Your task to perform on an android device: set default search engine in the chrome app Image 0: 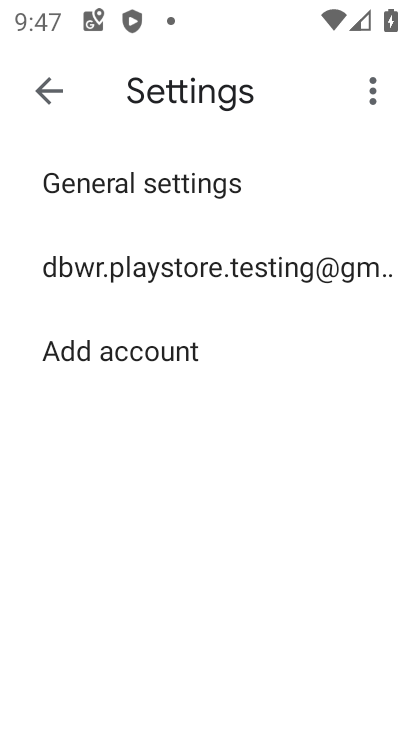
Step 0: press home button
Your task to perform on an android device: set default search engine in the chrome app Image 1: 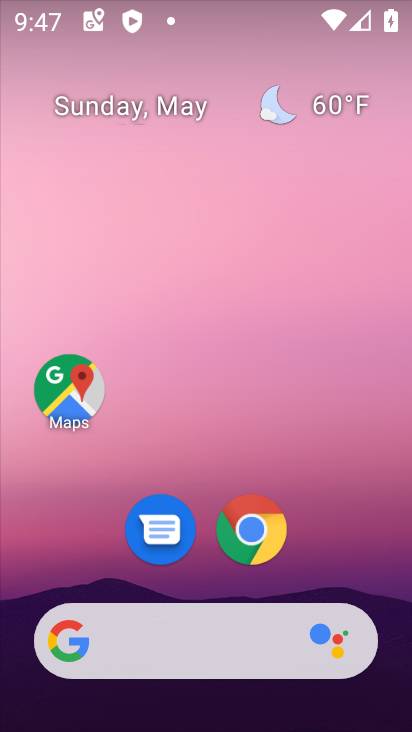
Step 1: drag from (381, 570) to (376, 145)
Your task to perform on an android device: set default search engine in the chrome app Image 2: 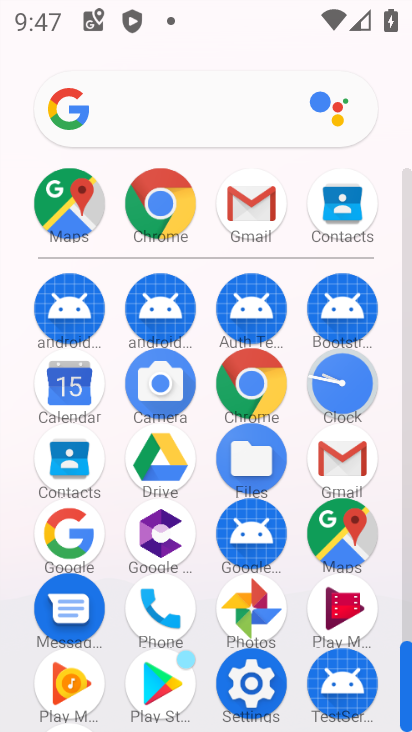
Step 2: click (177, 221)
Your task to perform on an android device: set default search engine in the chrome app Image 3: 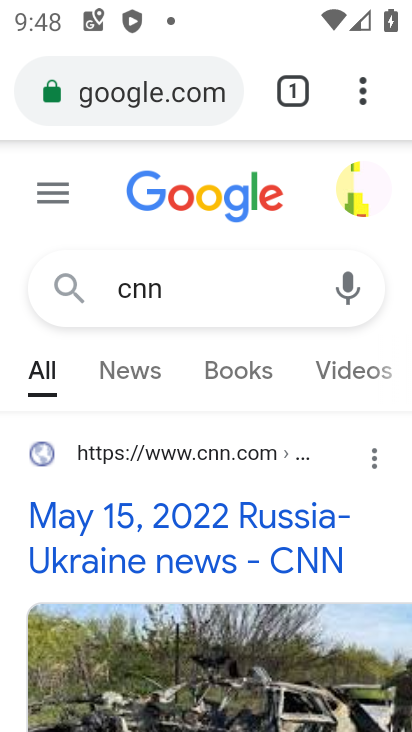
Step 3: click (363, 98)
Your task to perform on an android device: set default search engine in the chrome app Image 4: 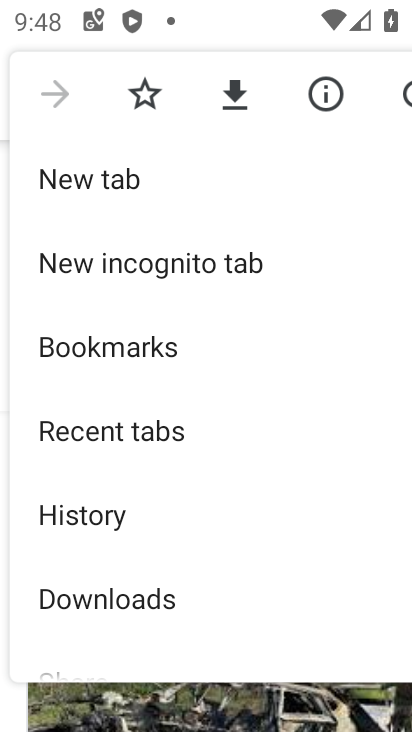
Step 4: drag from (338, 599) to (333, 292)
Your task to perform on an android device: set default search engine in the chrome app Image 5: 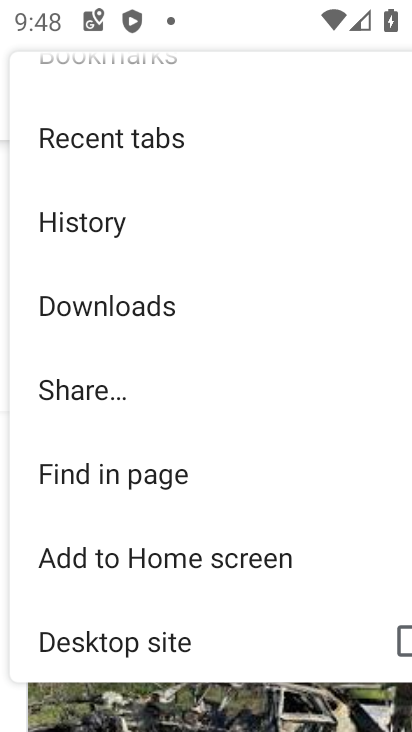
Step 5: drag from (303, 628) to (303, 396)
Your task to perform on an android device: set default search engine in the chrome app Image 6: 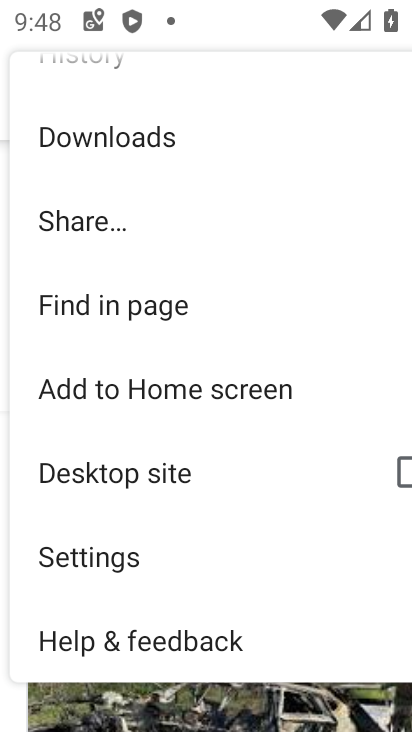
Step 6: click (126, 574)
Your task to perform on an android device: set default search engine in the chrome app Image 7: 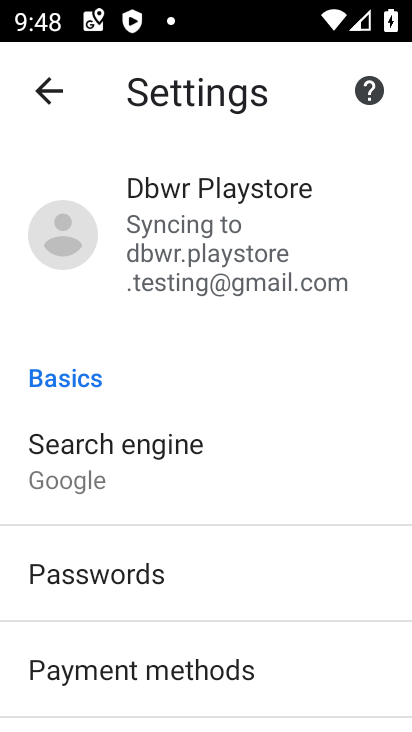
Step 7: click (146, 461)
Your task to perform on an android device: set default search engine in the chrome app Image 8: 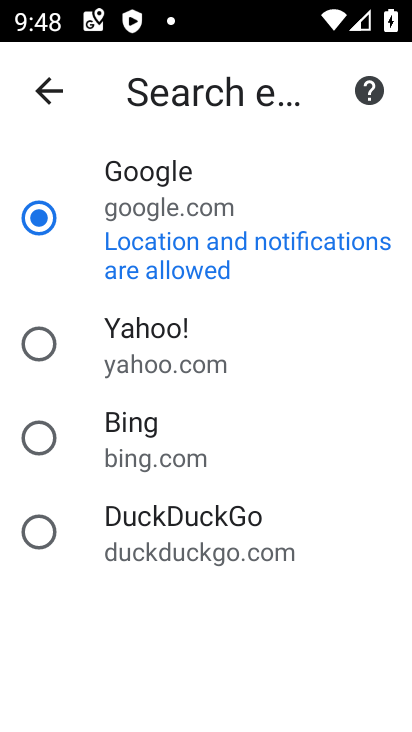
Step 8: click (143, 435)
Your task to perform on an android device: set default search engine in the chrome app Image 9: 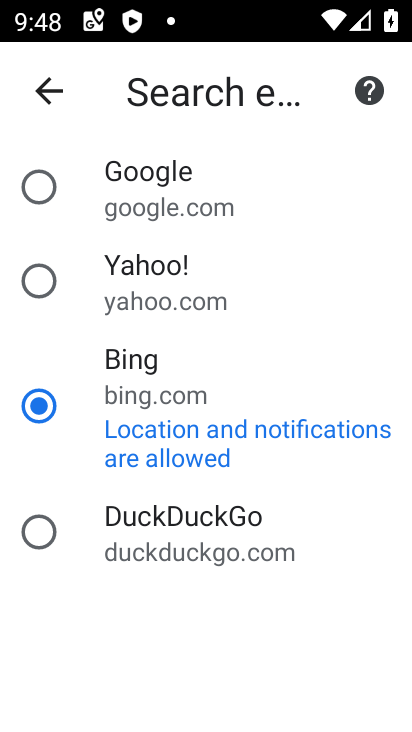
Step 9: task complete